Your task to perform on an android device: Open Wikipedia Image 0: 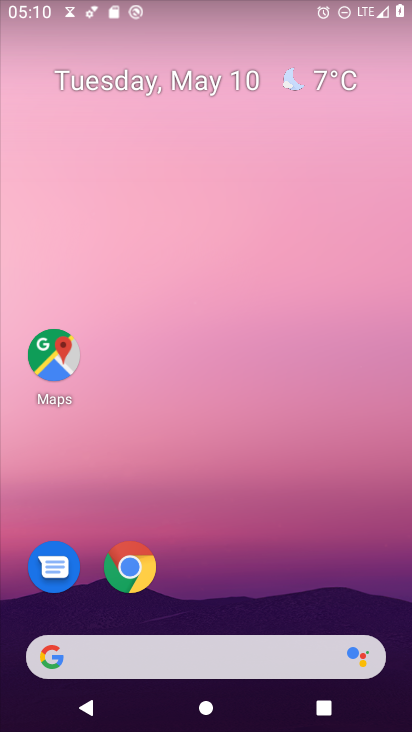
Step 0: click (132, 568)
Your task to perform on an android device: Open Wikipedia Image 1: 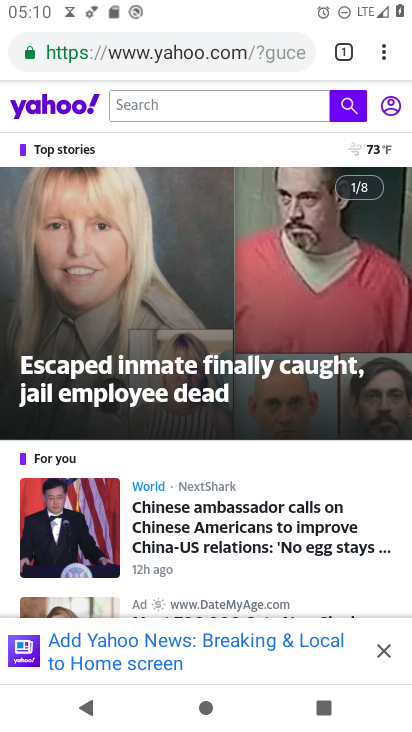
Step 1: click (272, 56)
Your task to perform on an android device: Open Wikipedia Image 2: 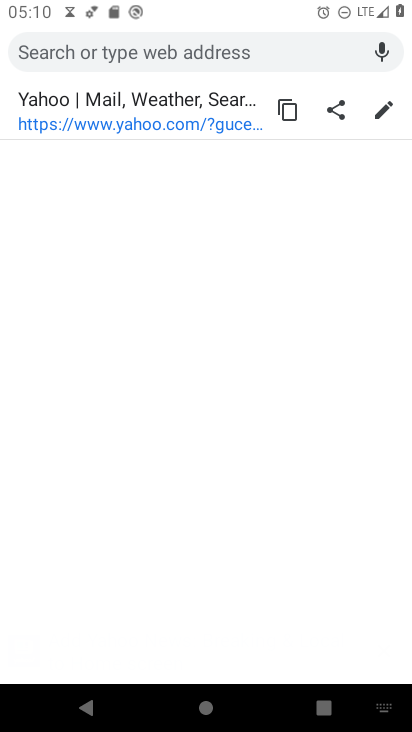
Step 2: type "Wikipedia"
Your task to perform on an android device: Open Wikipedia Image 3: 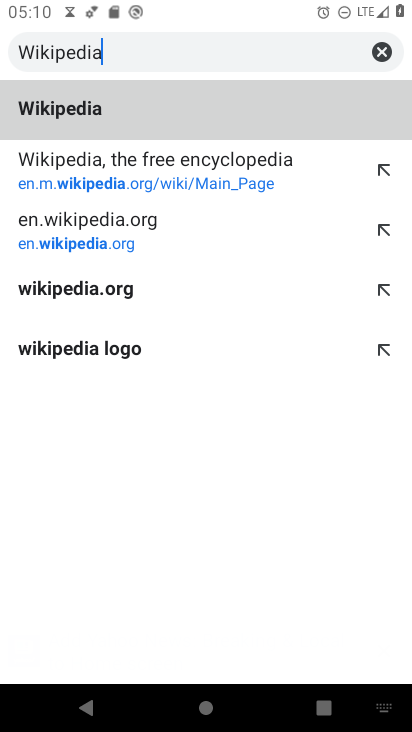
Step 3: click (117, 126)
Your task to perform on an android device: Open Wikipedia Image 4: 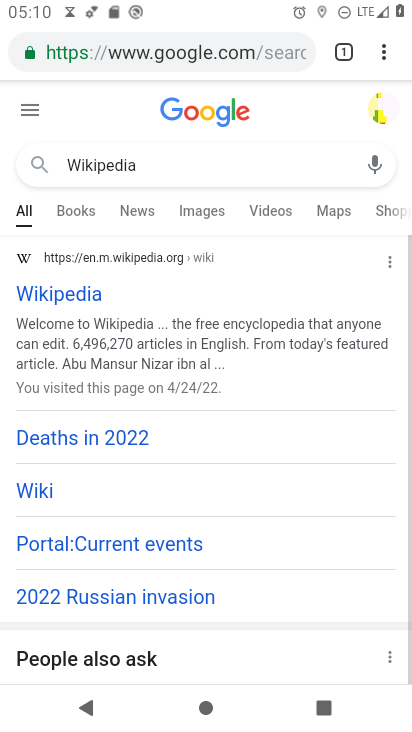
Step 4: click (94, 294)
Your task to perform on an android device: Open Wikipedia Image 5: 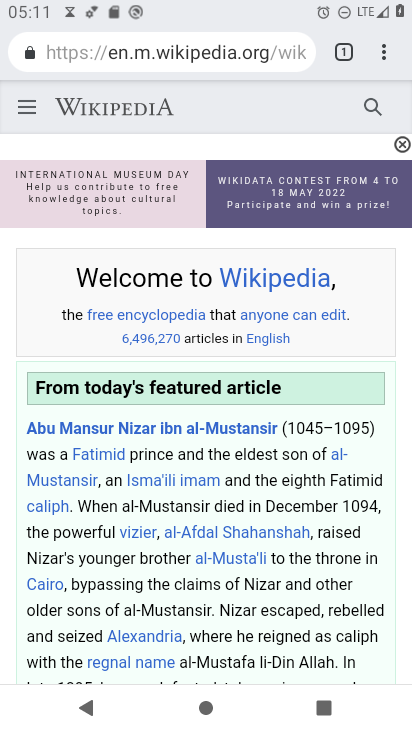
Step 5: task complete